Your task to perform on an android device: delete the emails in spam in the gmail app Image 0: 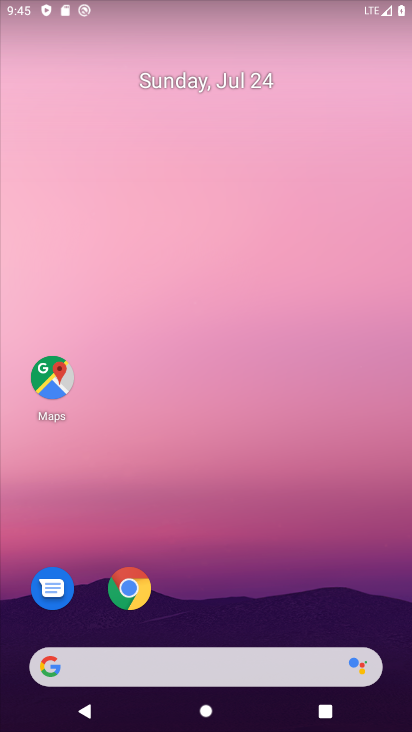
Step 0: drag from (271, 640) to (300, 5)
Your task to perform on an android device: delete the emails in spam in the gmail app Image 1: 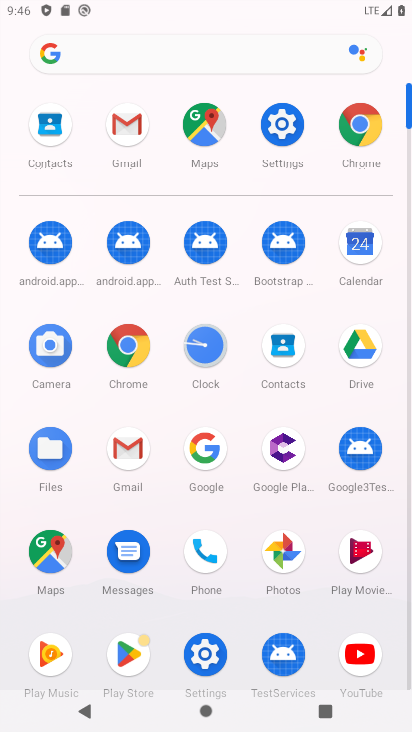
Step 1: click (128, 130)
Your task to perform on an android device: delete the emails in spam in the gmail app Image 2: 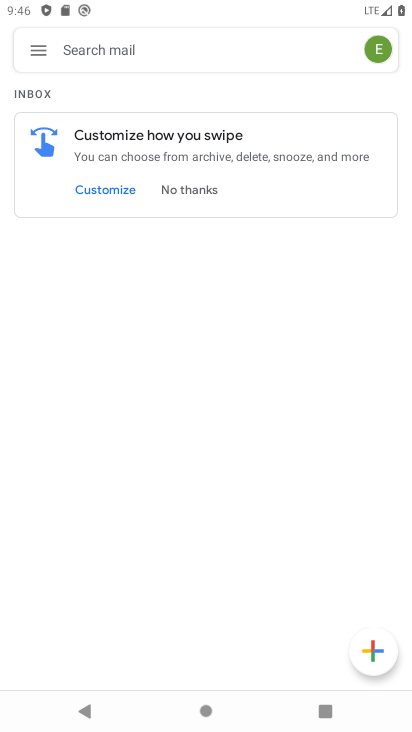
Step 2: task complete